Your task to perform on an android device: open chrome and create a bookmark for the current page Image 0: 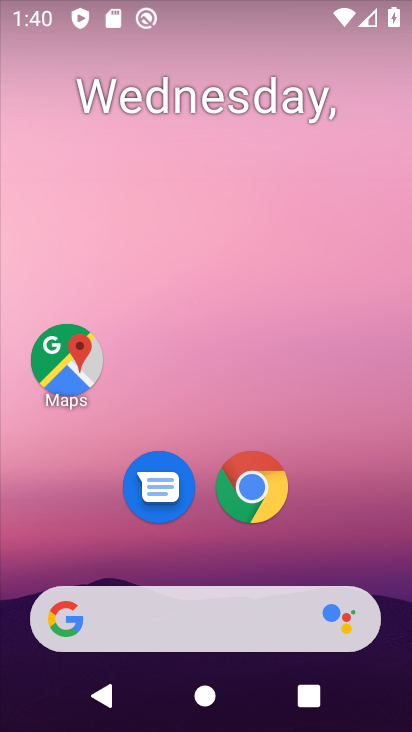
Step 0: click (256, 484)
Your task to perform on an android device: open chrome and create a bookmark for the current page Image 1: 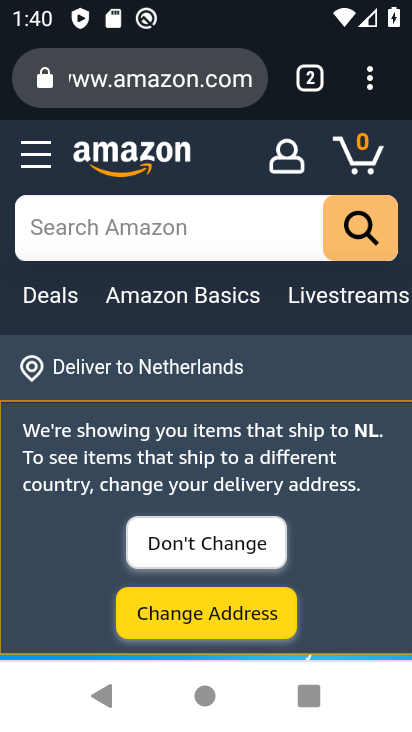
Step 1: click (373, 70)
Your task to perform on an android device: open chrome and create a bookmark for the current page Image 2: 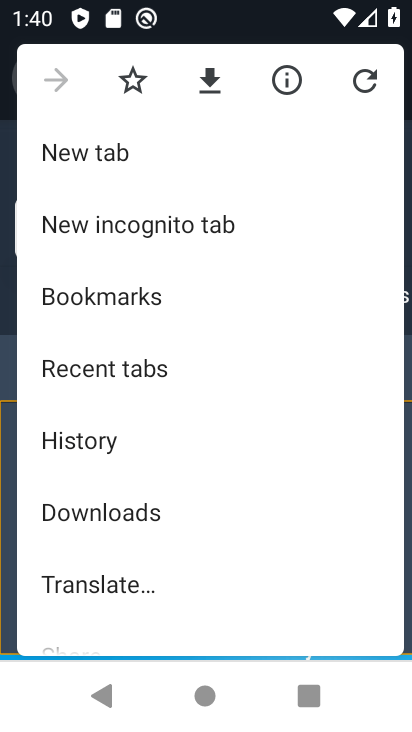
Step 2: click (132, 78)
Your task to perform on an android device: open chrome and create a bookmark for the current page Image 3: 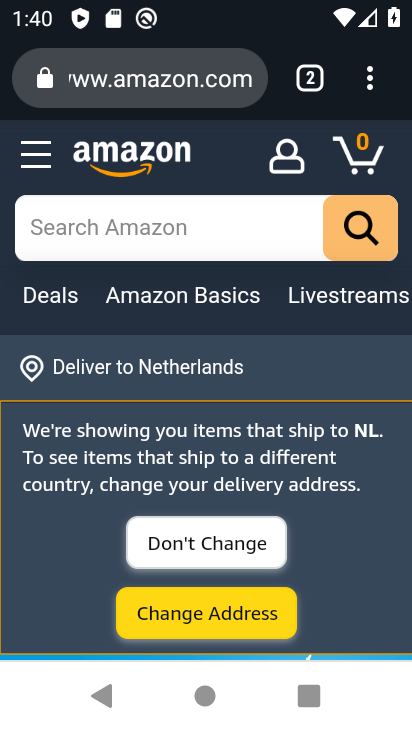
Step 3: task complete